Your task to perform on an android device: turn off airplane mode Image 0: 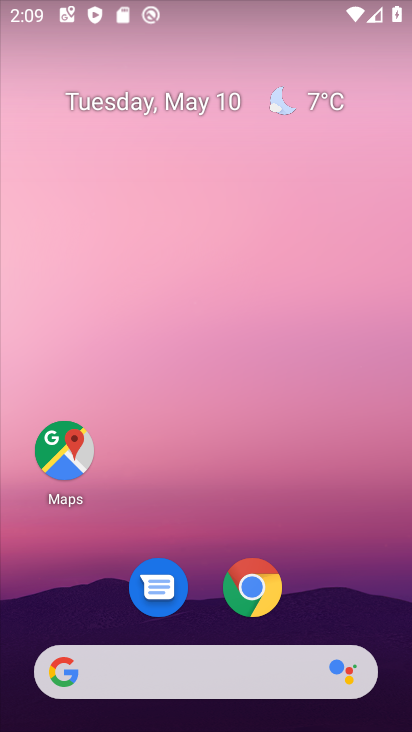
Step 0: drag from (387, 4) to (343, 306)
Your task to perform on an android device: turn off airplane mode Image 1: 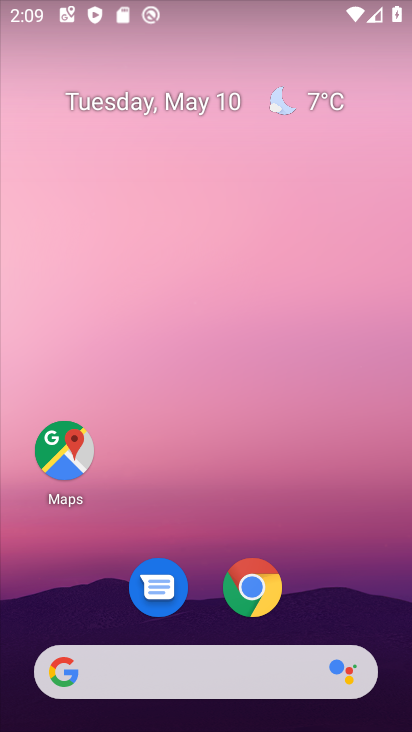
Step 1: task complete